Your task to perform on an android device: Add "energizer triple a" to the cart on amazon.com Image 0: 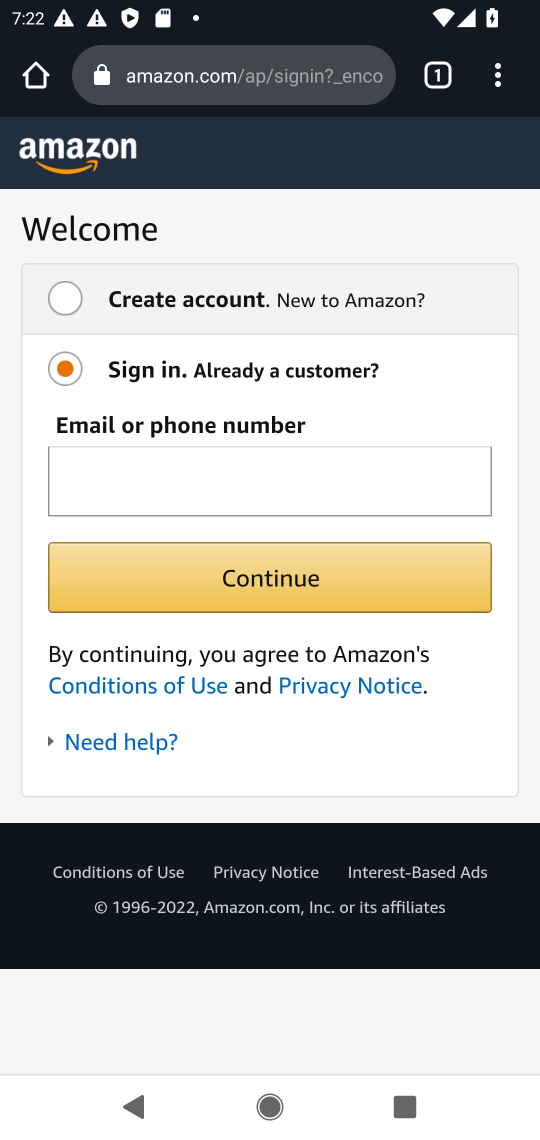
Step 0: press back button
Your task to perform on an android device: Add "energizer triple a" to the cart on amazon.com Image 1: 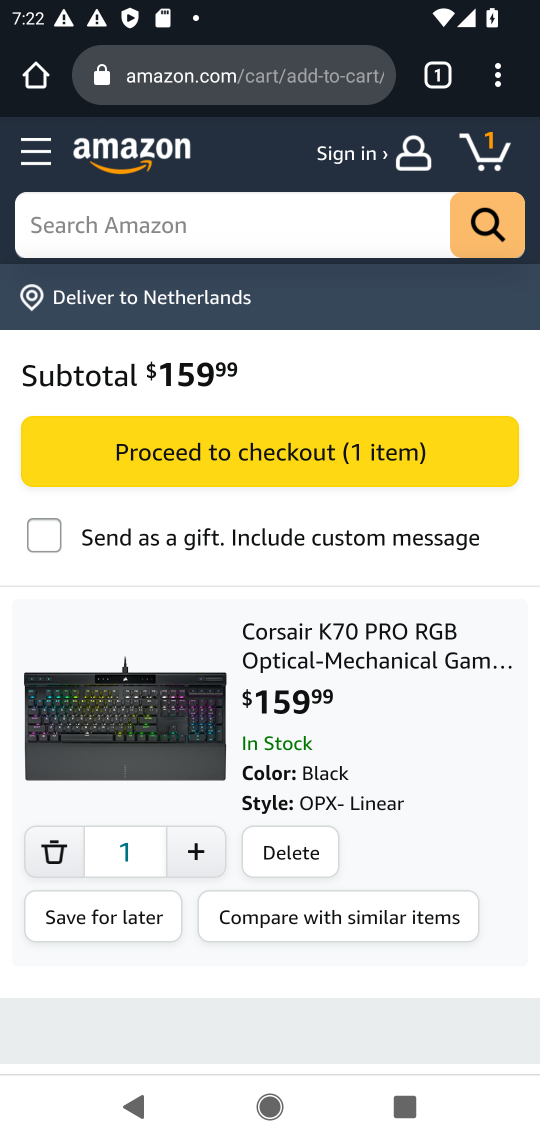
Step 1: click (118, 200)
Your task to perform on an android device: Add "energizer triple a" to the cart on amazon.com Image 2: 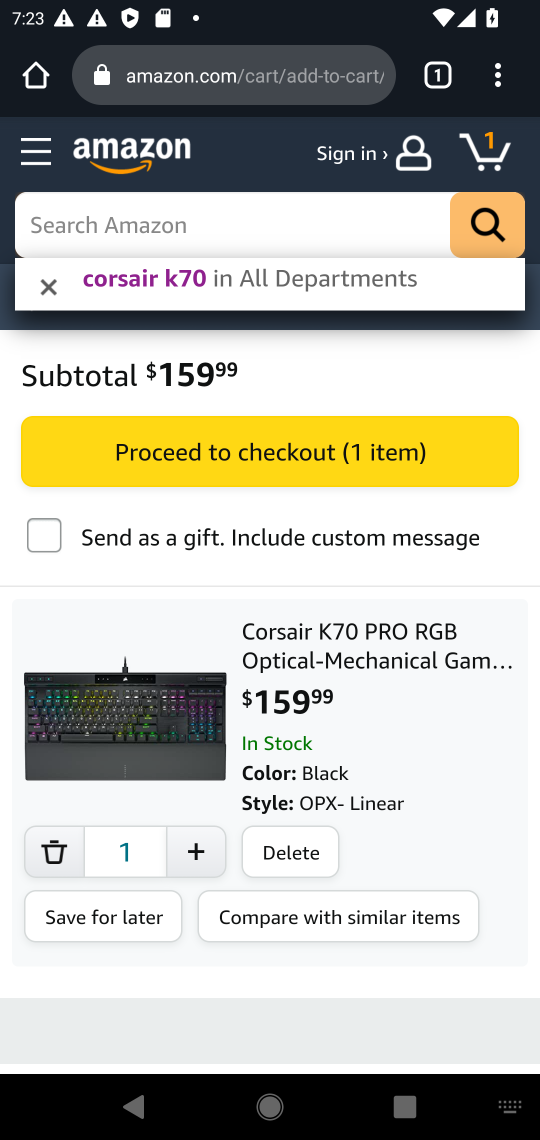
Step 2: type "energizer triple a"
Your task to perform on an android device: Add "energizer triple a" to the cart on amazon.com Image 3: 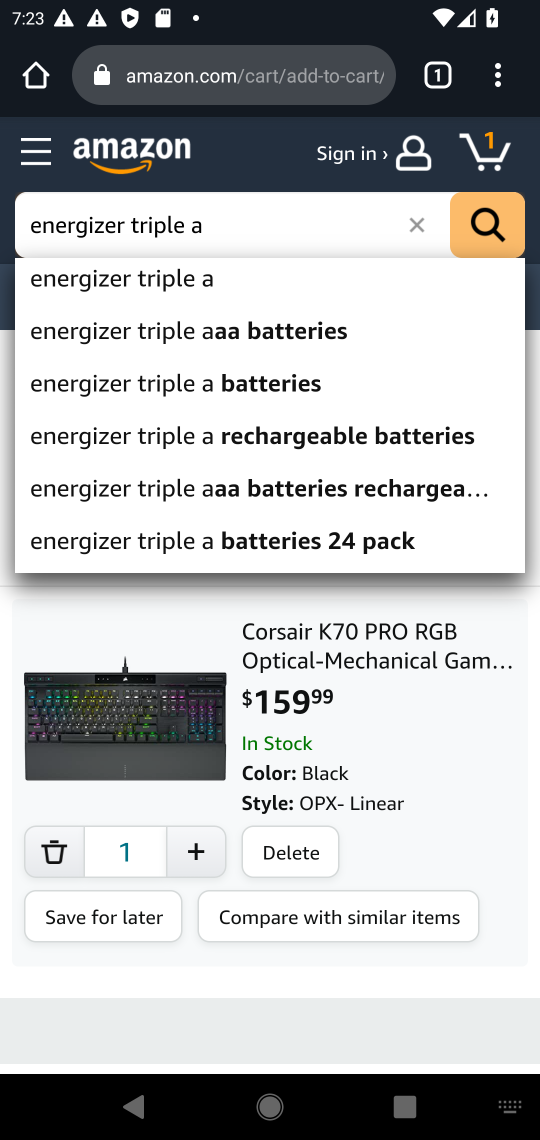
Step 3: click (181, 269)
Your task to perform on an android device: Add "energizer triple a" to the cart on amazon.com Image 4: 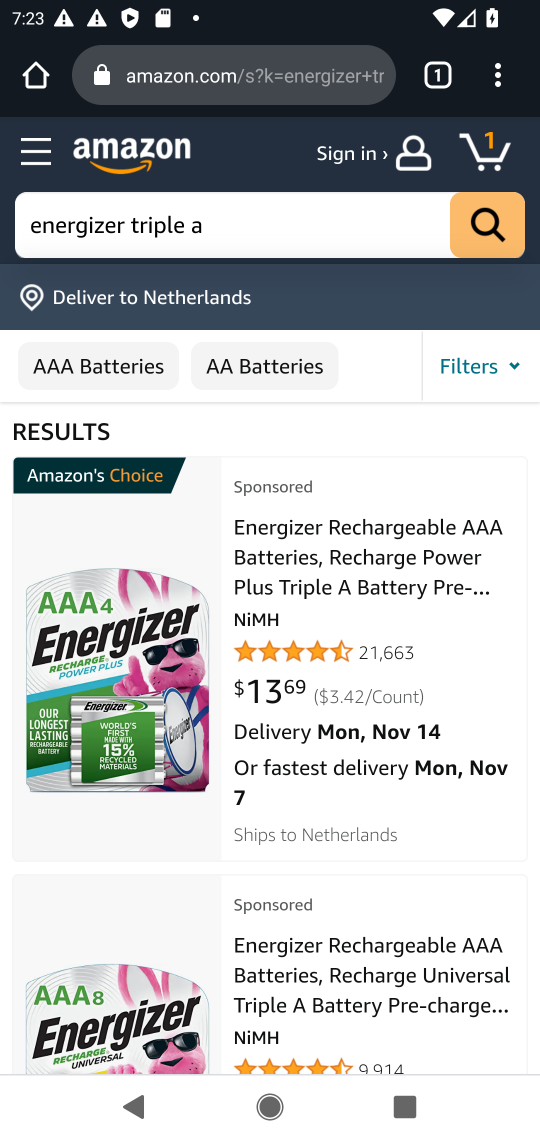
Step 4: click (395, 944)
Your task to perform on an android device: Add "energizer triple a" to the cart on amazon.com Image 5: 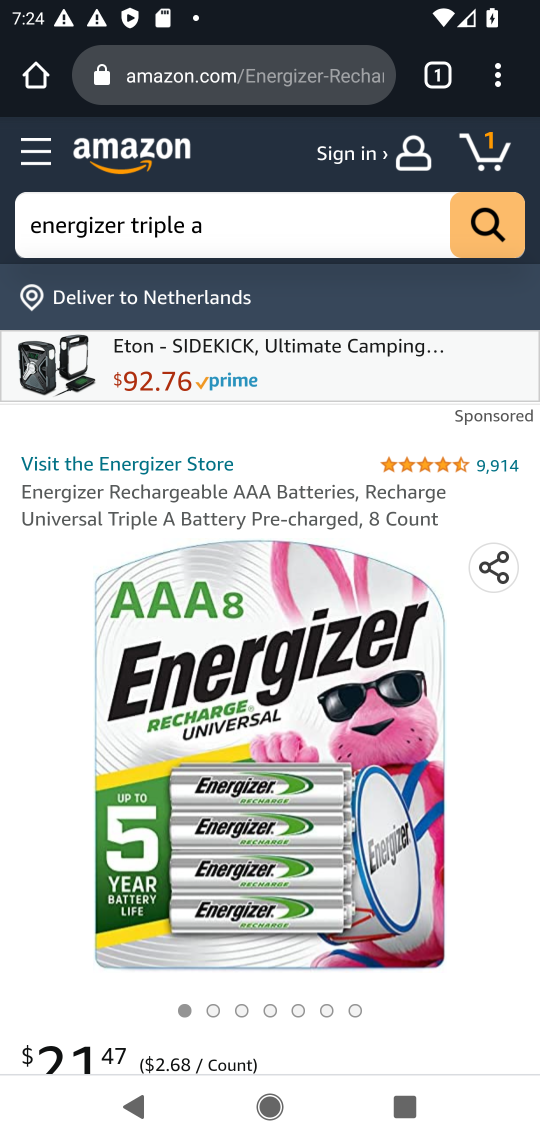
Step 5: drag from (272, 995) to (313, 379)
Your task to perform on an android device: Add "energizer triple a" to the cart on amazon.com Image 6: 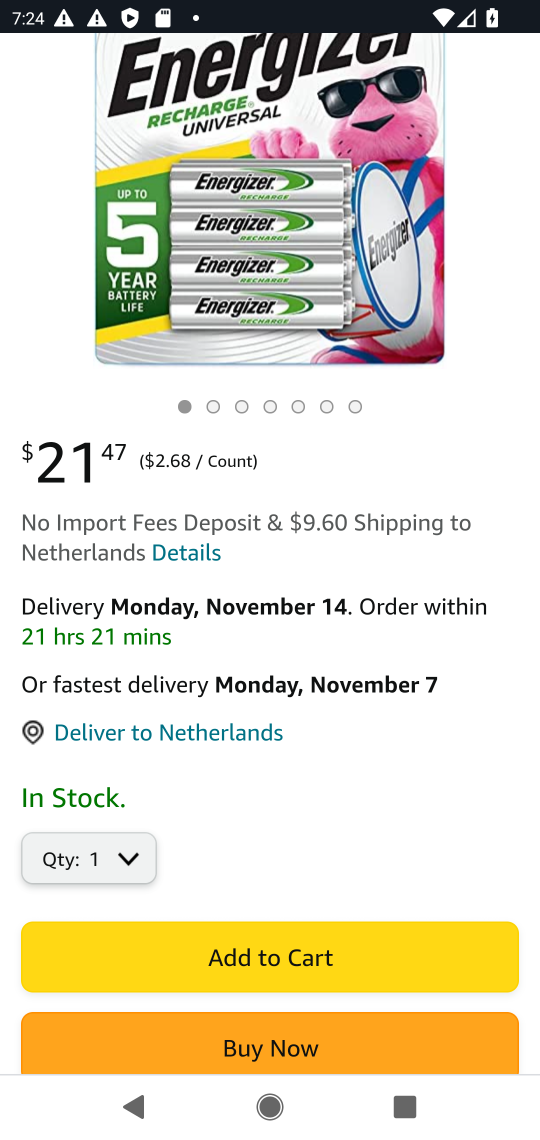
Step 6: drag from (259, 992) to (249, 675)
Your task to perform on an android device: Add "energizer triple a" to the cart on amazon.com Image 7: 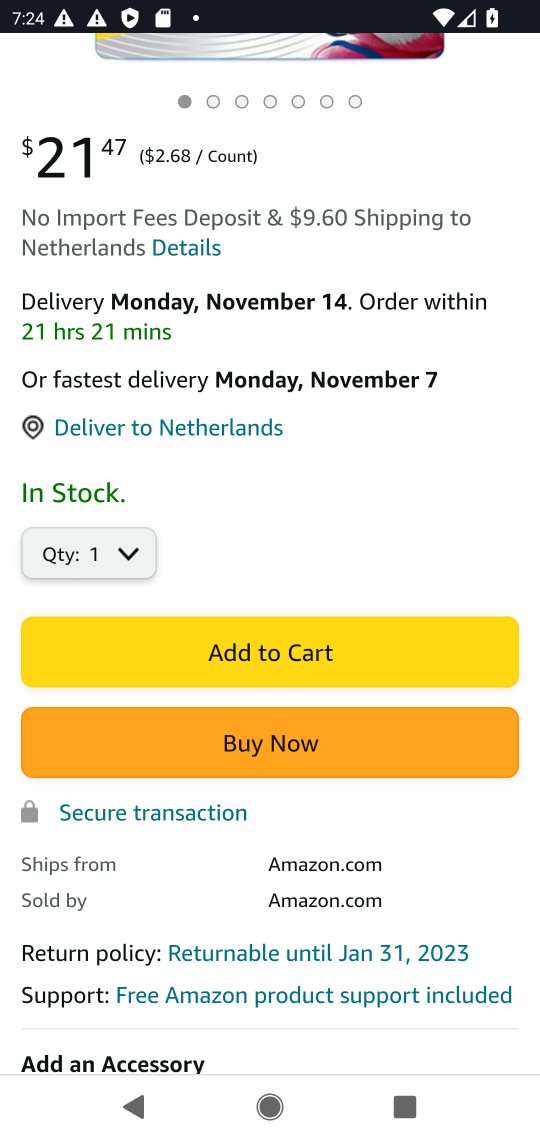
Step 7: click (268, 647)
Your task to perform on an android device: Add "energizer triple a" to the cart on amazon.com Image 8: 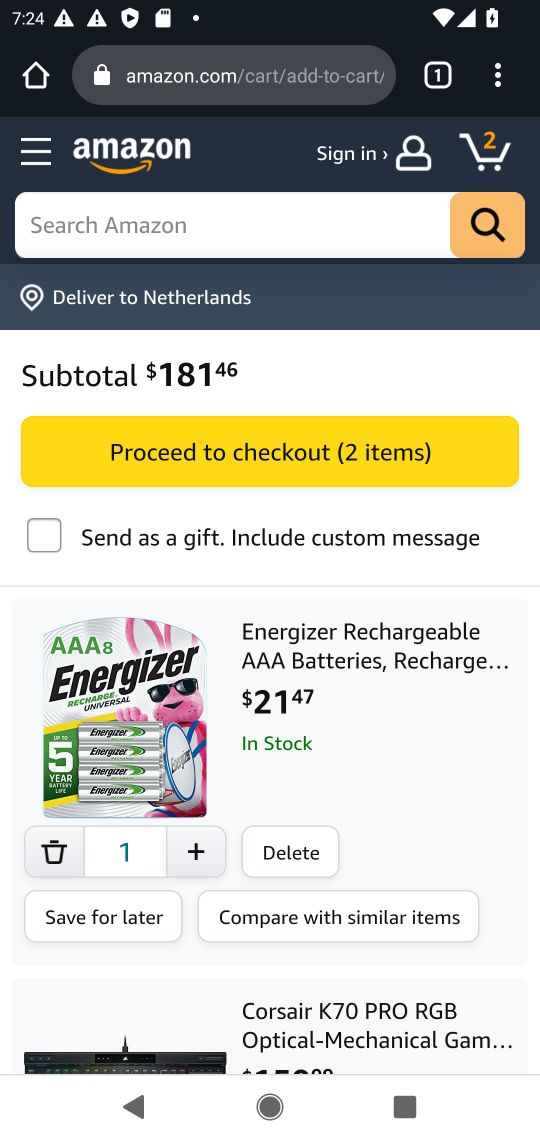
Step 8: task complete